Your task to perform on an android device: Go to wifi settings Image 0: 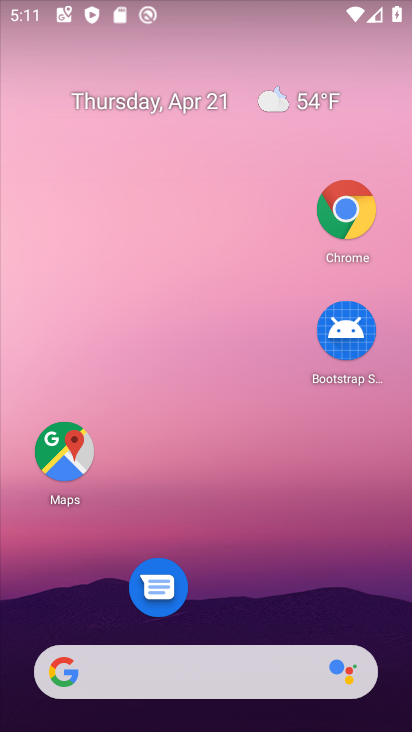
Step 0: drag from (188, 28) to (182, 503)
Your task to perform on an android device: Go to wifi settings Image 1: 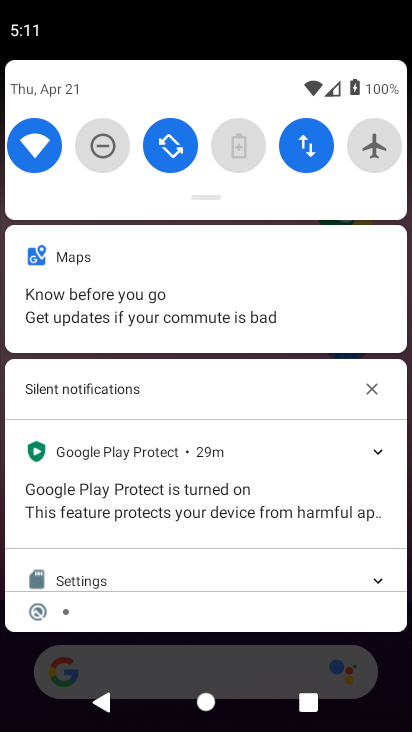
Step 1: click (39, 145)
Your task to perform on an android device: Go to wifi settings Image 2: 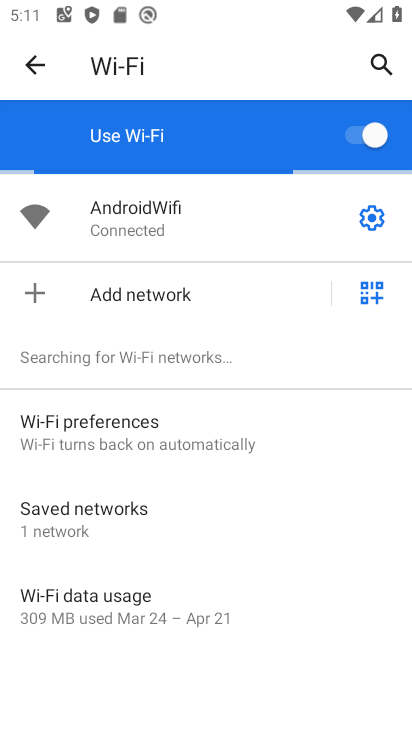
Step 2: task complete